Your task to perform on an android device: empty trash in the gmail app Image 0: 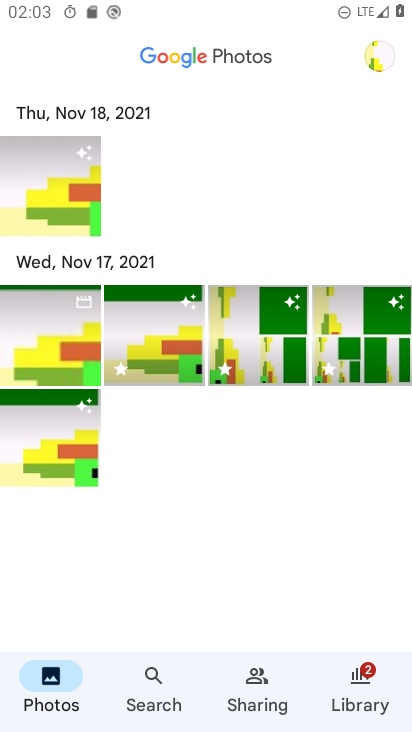
Step 0: press home button
Your task to perform on an android device: empty trash in the gmail app Image 1: 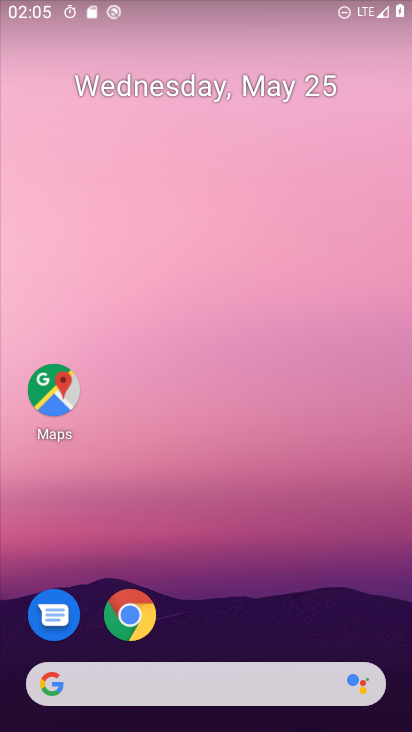
Step 1: drag from (279, 694) to (156, 219)
Your task to perform on an android device: empty trash in the gmail app Image 2: 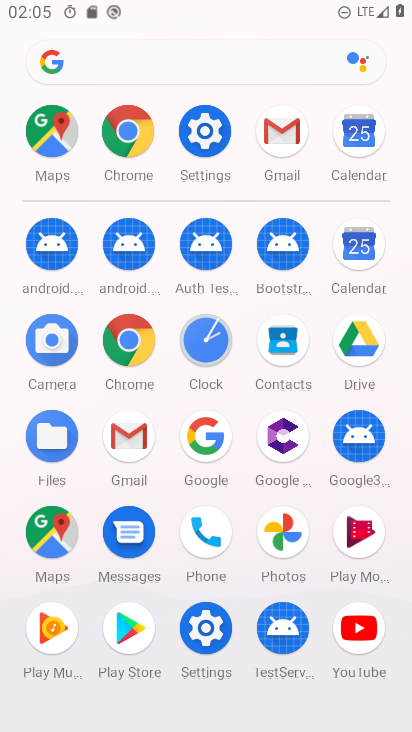
Step 2: click (281, 159)
Your task to perform on an android device: empty trash in the gmail app Image 3: 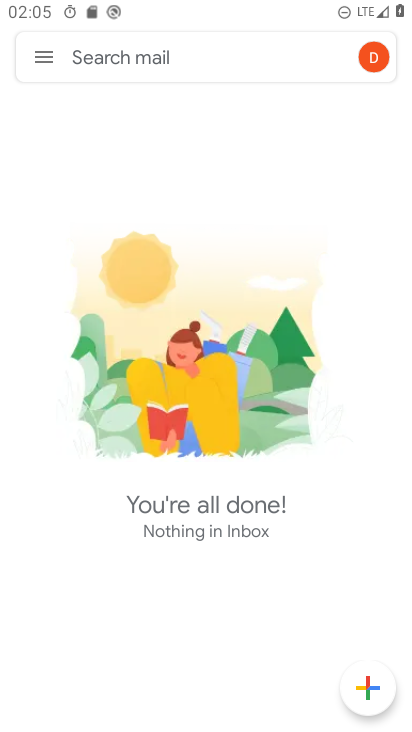
Step 3: click (48, 40)
Your task to perform on an android device: empty trash in the gmail app Image 4: 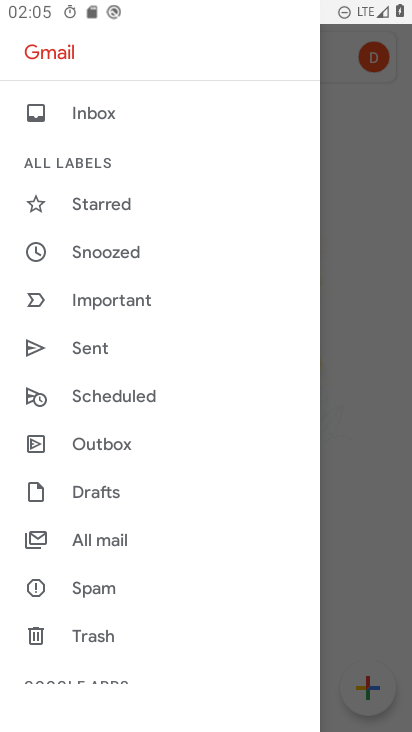
Step 4: click (104, 644)
Your task to perform on an android device: empty trash in the gmail app Image 5: 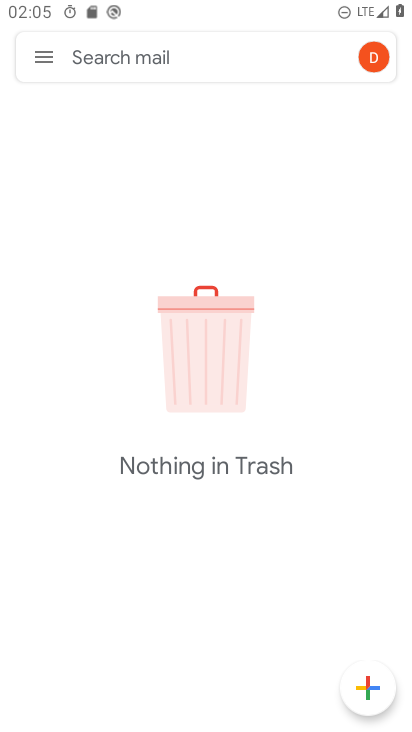
Step 5: task complete